Your task to perform on an android device: Open Chrome and go to settings Image 0: 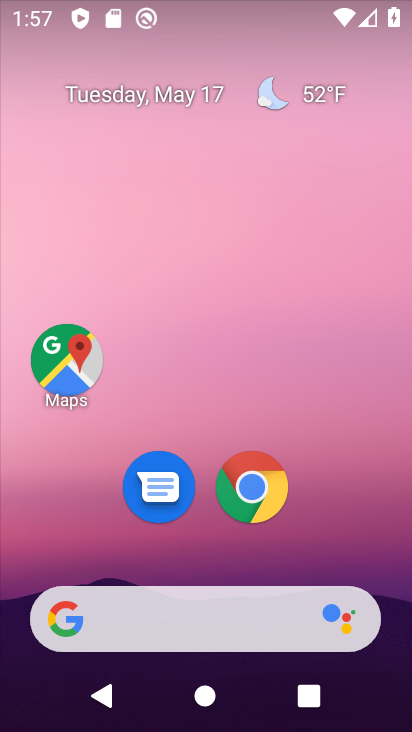
Step 0: click (255, 484)
Your task to perform on an android device: Open Chrome and go to settings Image 1: 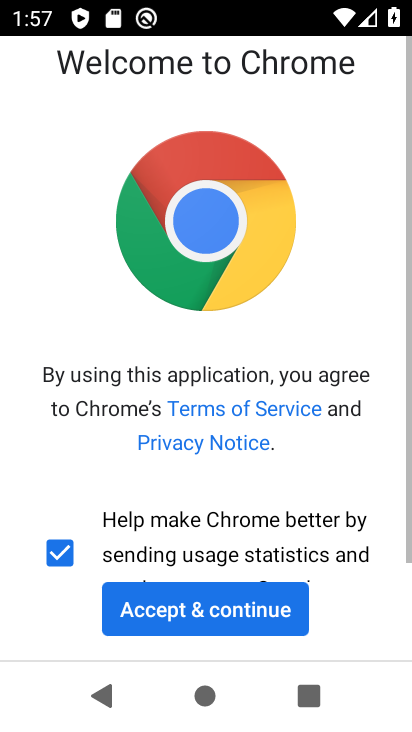
Step 1: click (230, 599)
Your task to perform on an android device: Open Chrome and go to settings Image 2: 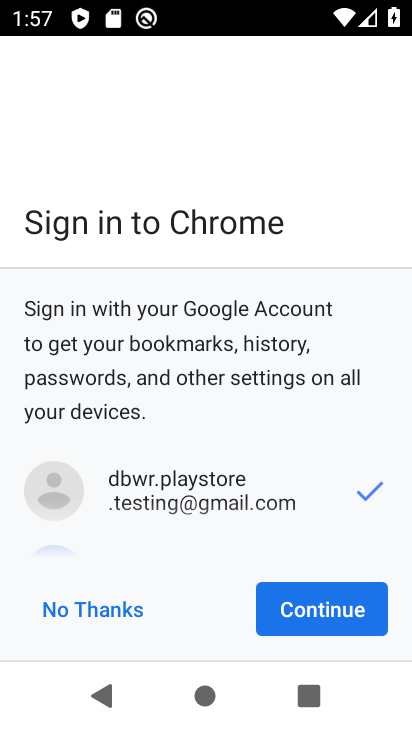
Step 2: click (315, 616)
Your task to perform on an android device: Open Chrome and go to settings Image 3: 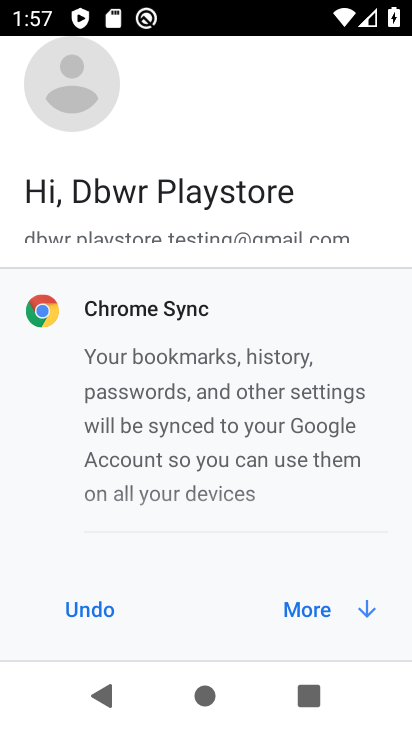
Step 3: click (313, 617)
Your task to perform on an android device: Open Chrome and go to settings Image 4: 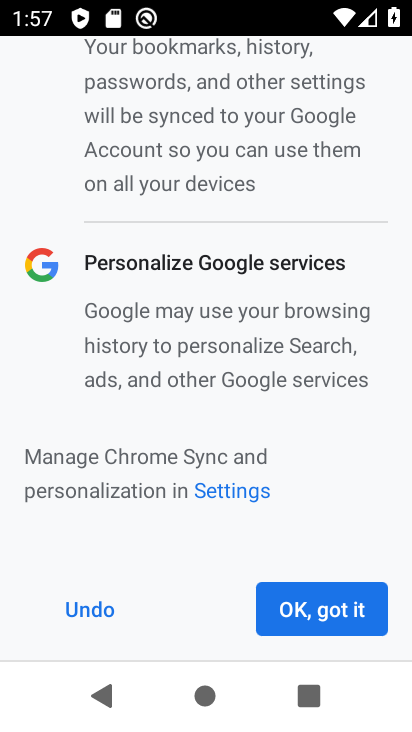
Step 4: click (313, 617)
Your task to perform on an android device: Open Chrome and go to settings Image 5: 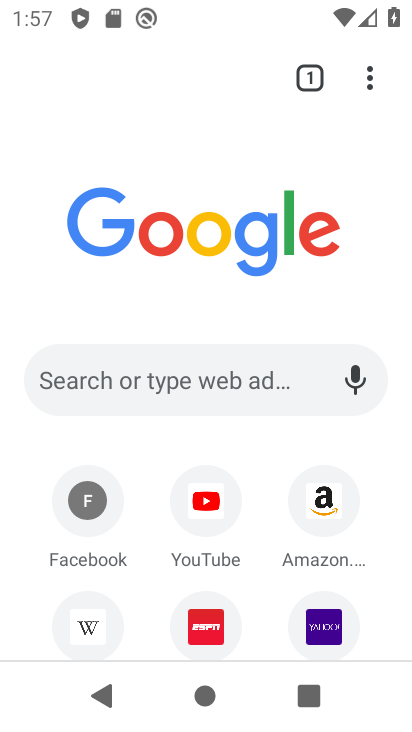
Step 5: click (372, 74)
Your task to perform on an android device: Open Chrome and go to settings Image 6: 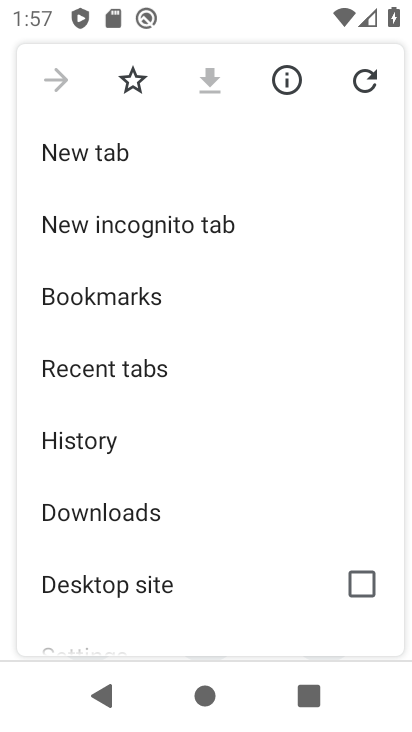
Step 6: drag from (270, 589) to (267, 270)
Your task to perform on an android device: Open Chrome and go to settings Image 7: 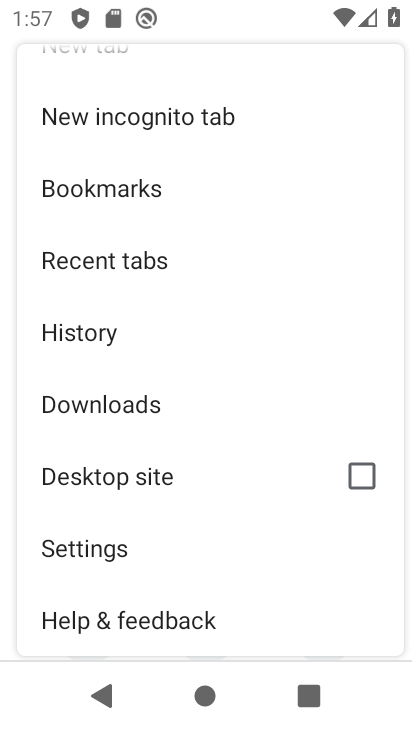
Step 7: drag from (280, 600) to (269, 286)
Your task to perform on an android device: Open Chrome and go to settings Image 8: 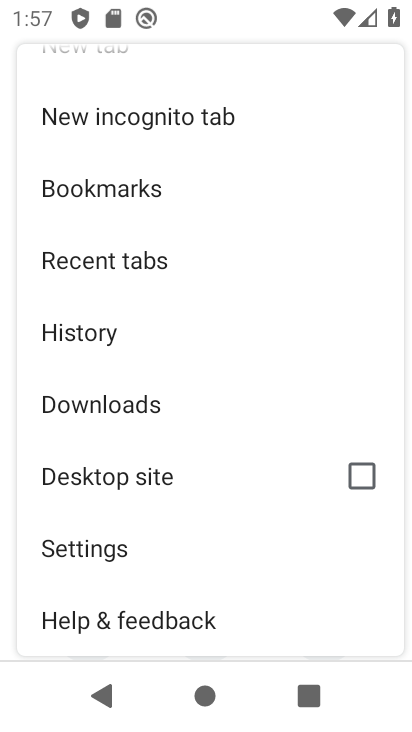
Step 8: drag from (264, 582) to (236, 291)
Your task to perform on an android device: Open Chrome and go to settings Image 9: 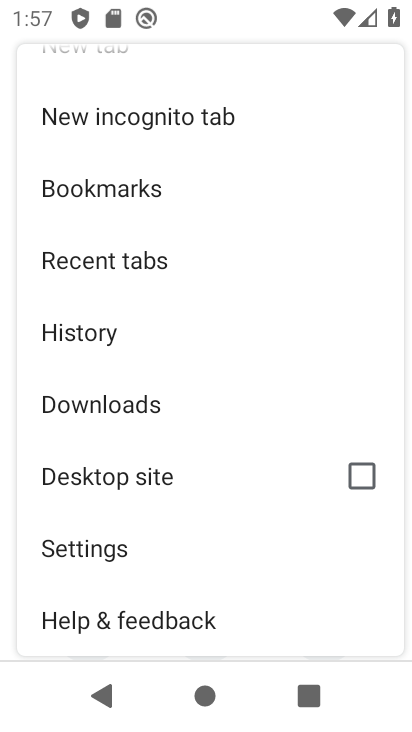
Step 9: drag from (238, 529) to (235, 314)
Your task to perform on an android device: Open Chrome and go to settings Image 10: 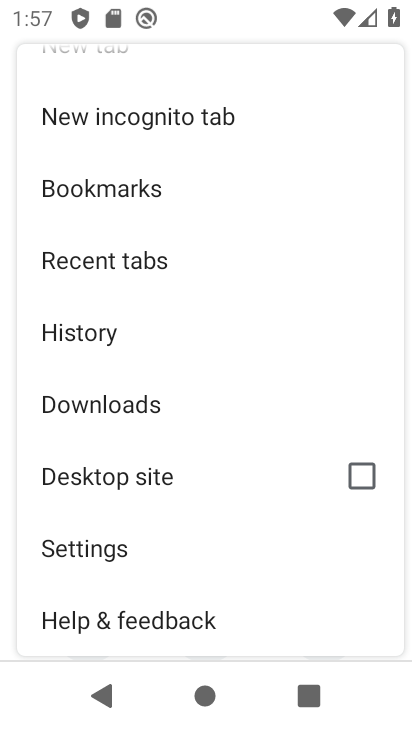
Step 10: click (98, 550)
Your task to perform on an android device: Open Chrome and go to settings Image 11: 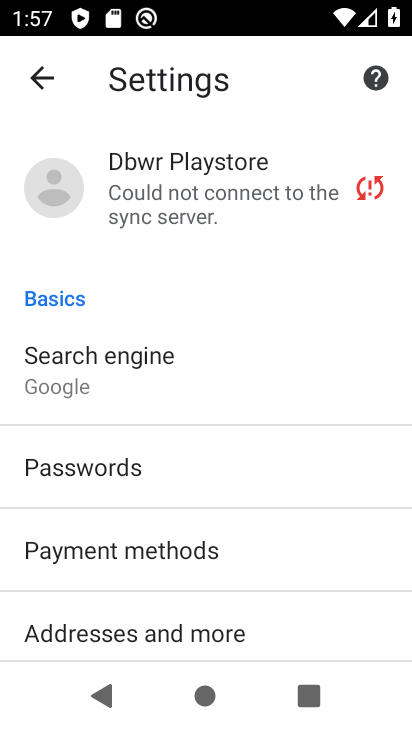
Step 11: drag from (342, 577) to (336, 395)
Your task to perform on an android device: Open Chrome and go to settings Image 12: 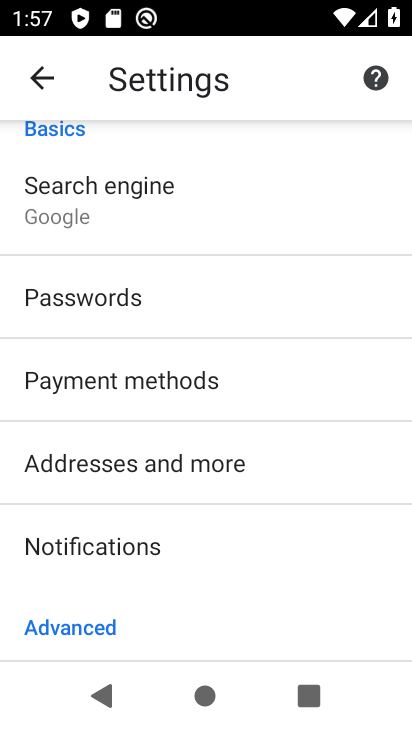
Step 12: click (289, 332)
Your task to perform on an android device: Open Chrome and go to settings Image 13: 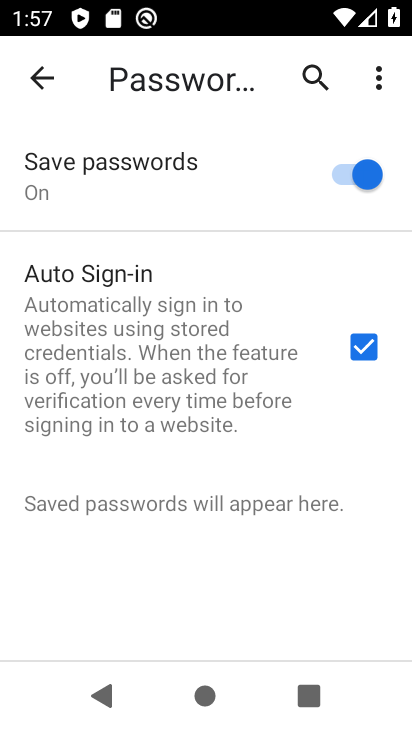
Step 13: drag from (311, 565) to (310, 343)
Your task to perform on an android device: Open Chrome and go to settings Image 14: 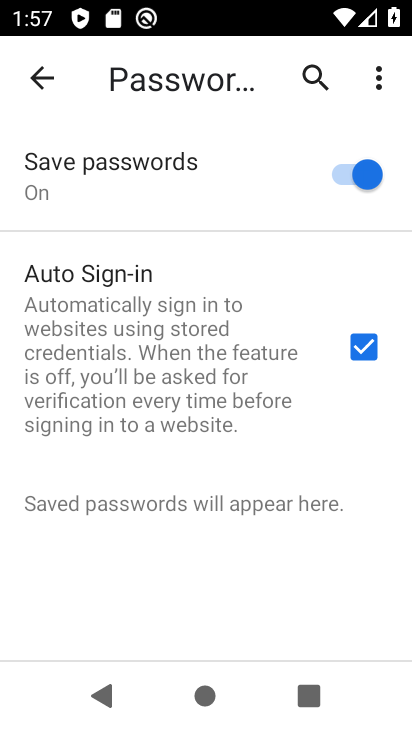
Step 14: click (34, 72)
Your task to perform on an android device: Open Chrome and go to settings Image 15: 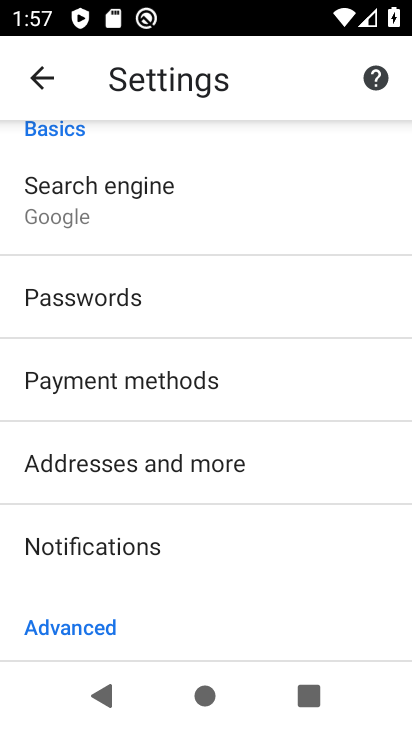
Step 15: task complete